Your task to perform on an android device: allow notifications from all sites in the chrome app Image 0: 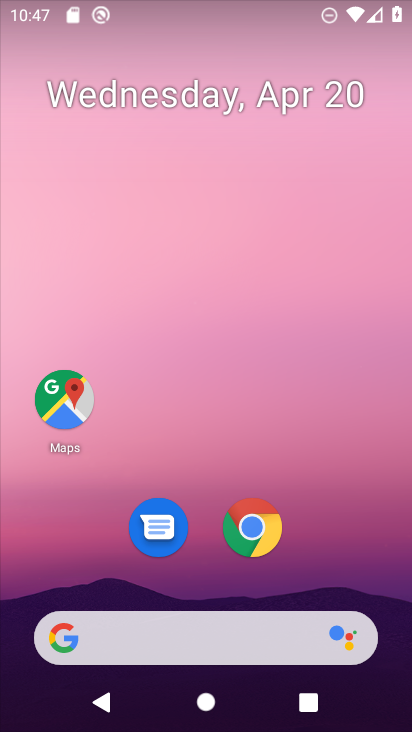
Step 0: click (260, 519)
Your task to perform on an android device: allow notifications from all sites in the chrome app Image 1: 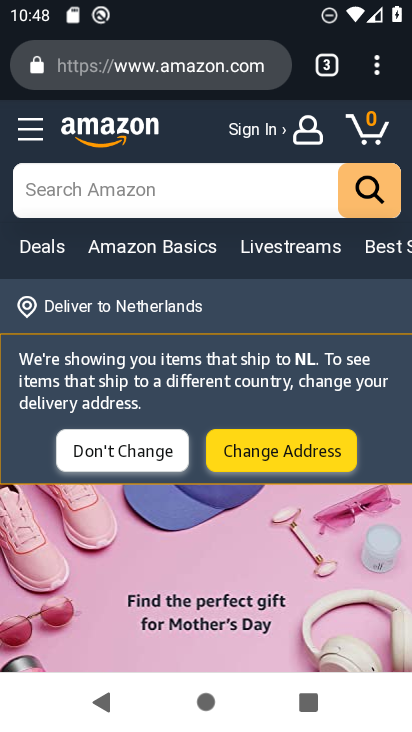
Step 1: click (384, 59)
Your task to perform on an android device: allow notifications from all sites in the chrome app Image 2: 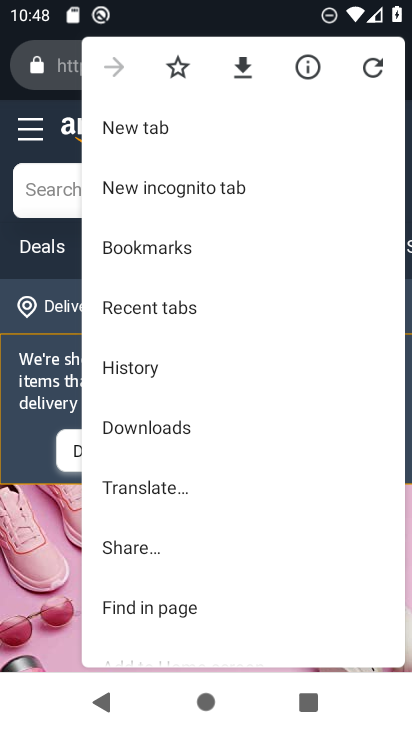
Step 2: drag from (136, 534) to (191, 188)
Your task to perform on an android device: allow notifications from all sites in the chrome app Image 3: 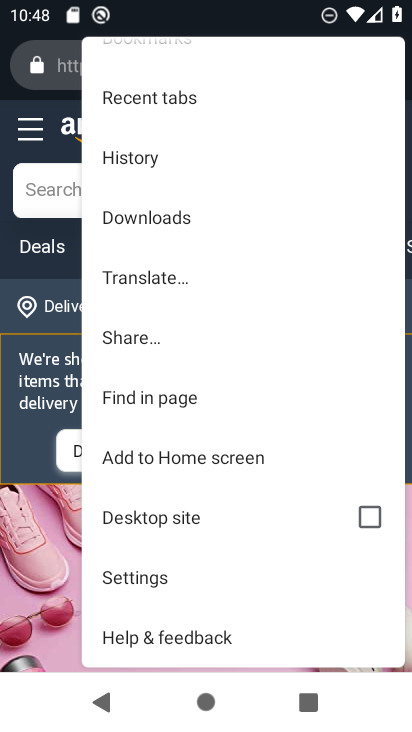
Step 3: click (142, 583)
Your task to perform on an android device: allow notifications from all sites in the chrome app Image 4: 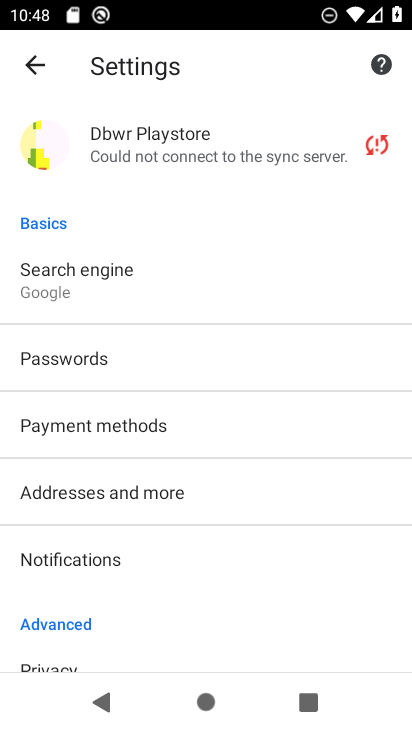
Step 4: drag from (153, 522) to (159, 298)
Your task to perform on an android device: allow notifications from all sites in the chrome app Image 5: 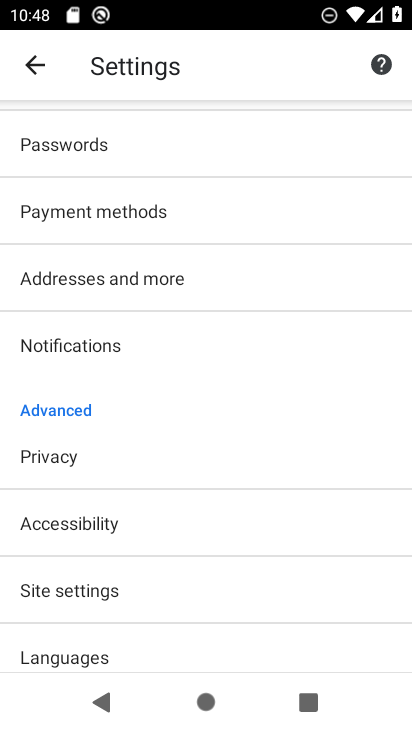
Step 5: click (93, 352)
Your task to perform on an android device: allow notifications from all sites in the chrome app Image 6: 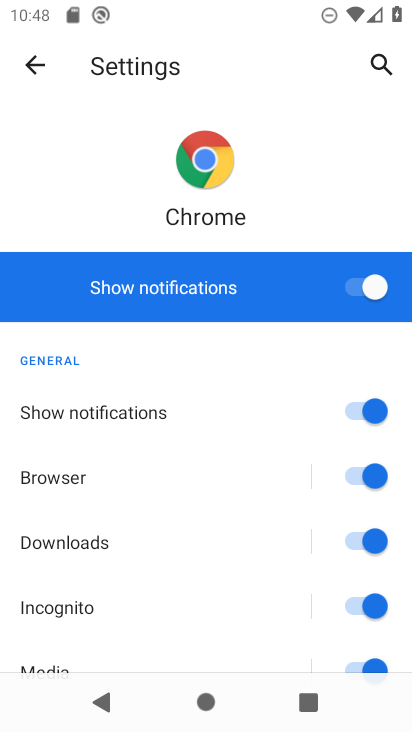
Step 6: task complete